Your task to perform on an android device: Search for flights from Sydney to Buenos aires Image 0: 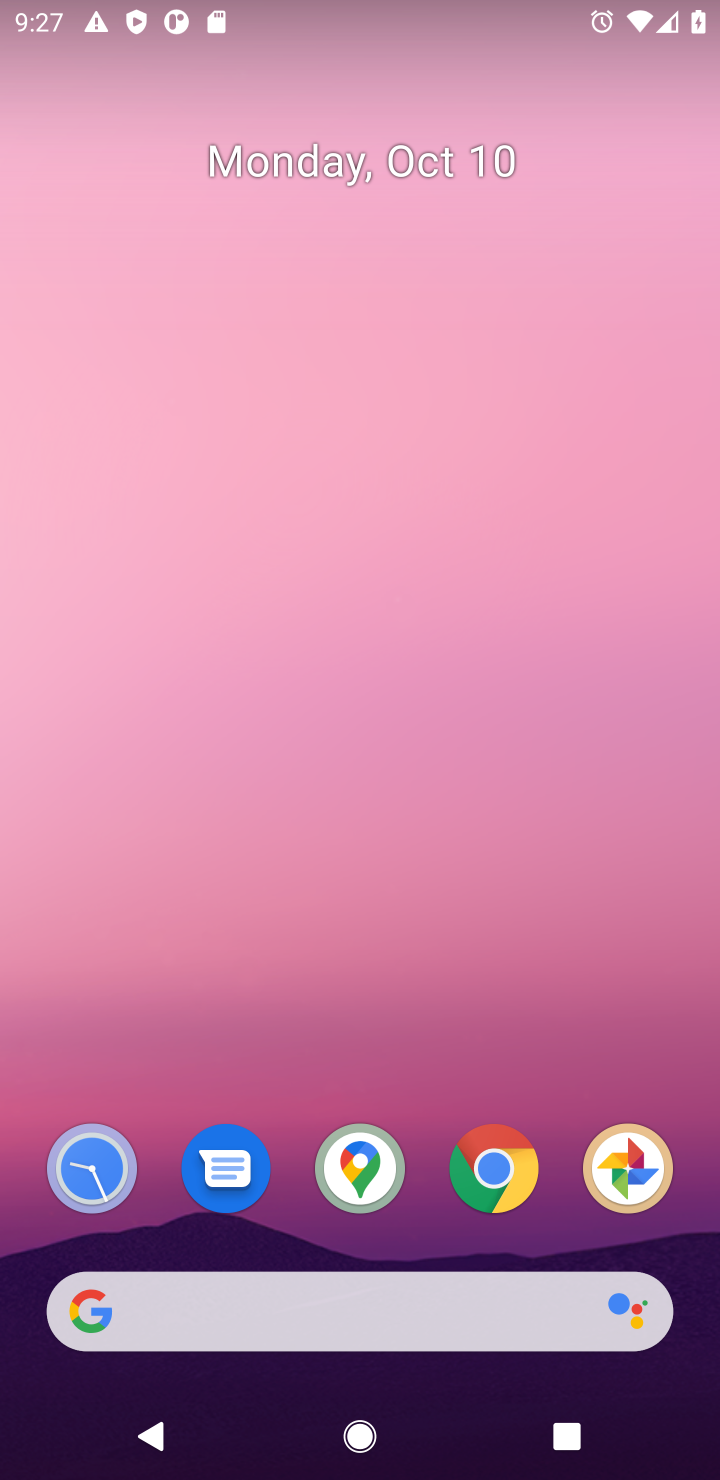
Step 0: drag from (426, 1111) to (474, 367)
Your task to perform on an android device: Search for flights from Sydney to Buenos aires Image 1: 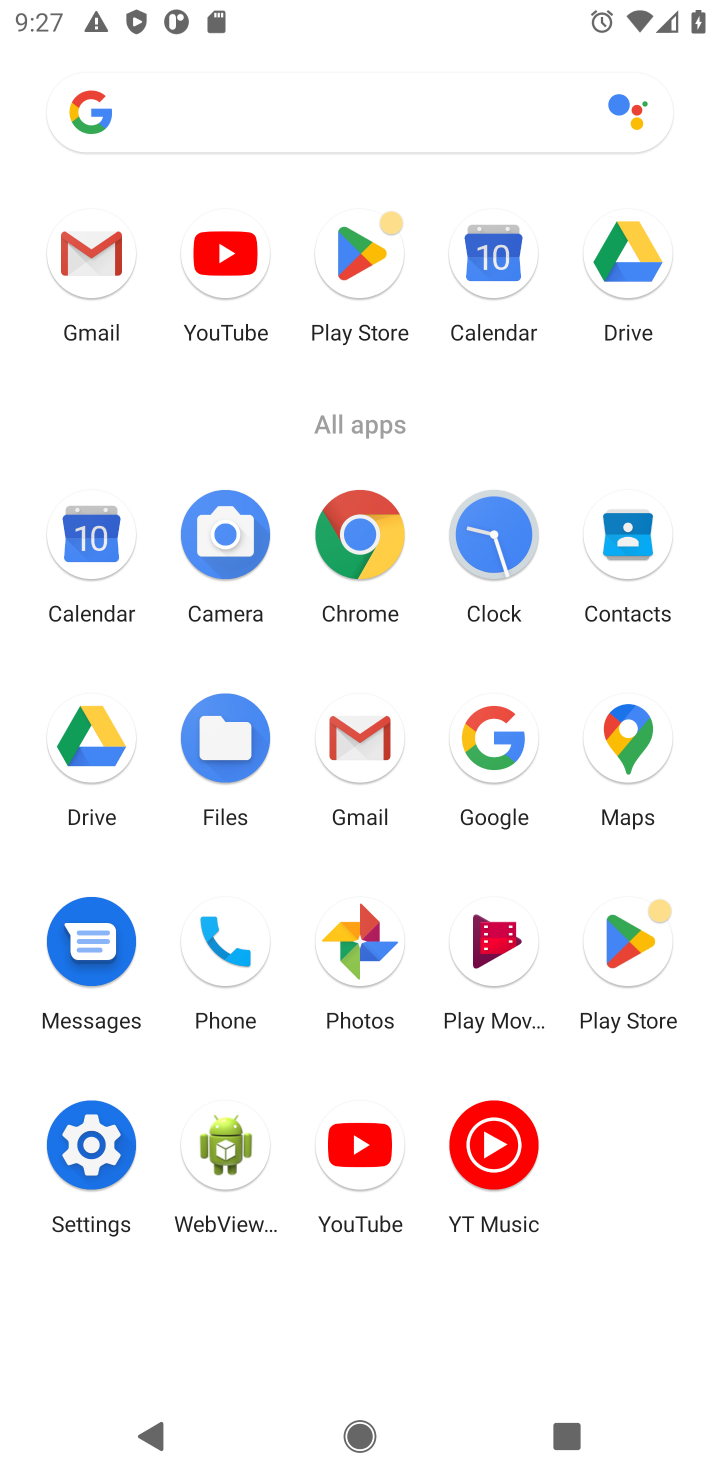
Step 1: click (375, 523)
Your task to perform on an android device: Search for flights from Sydney to Buenos aires Image 2: 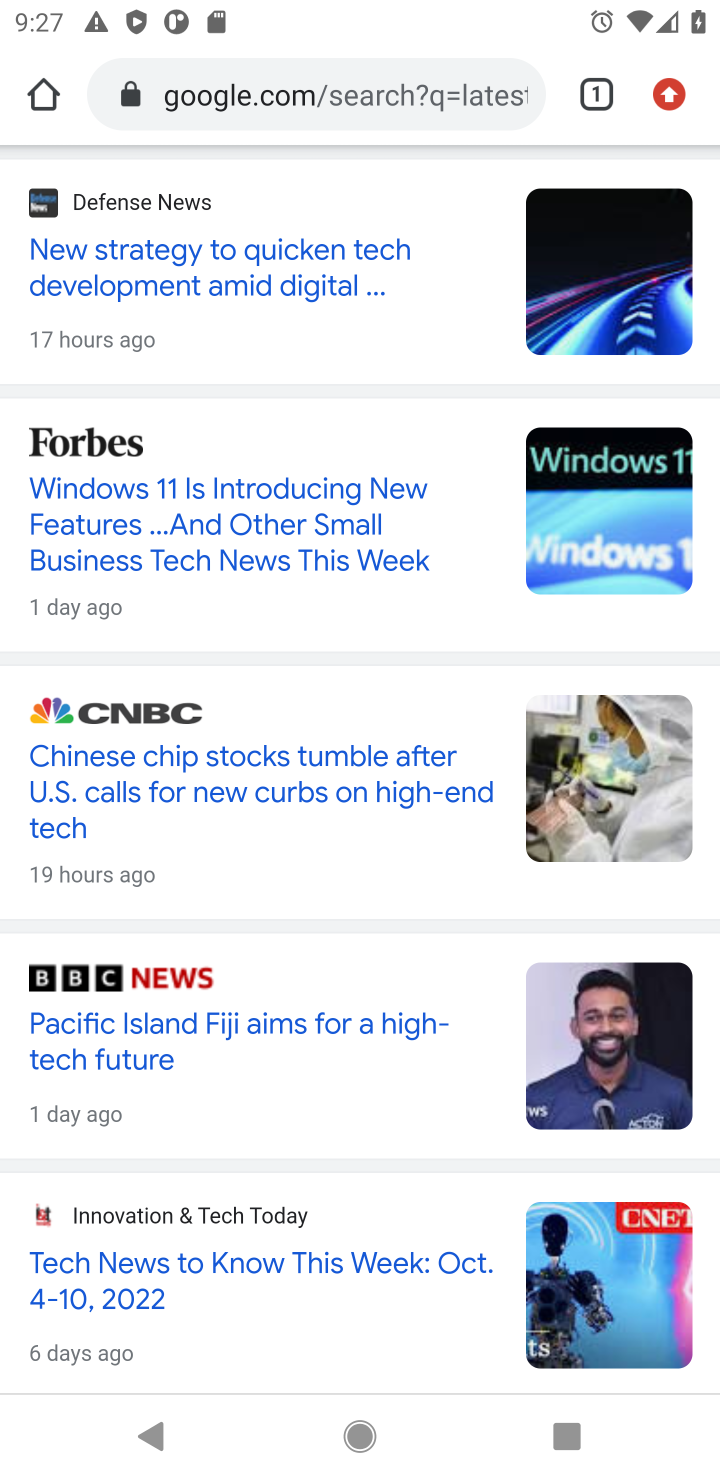
Step 2: drag from (461, 165) to (504, 343)
Your task to perform on an android device: Search for flights from Sydney to Buenos aires Image 3: 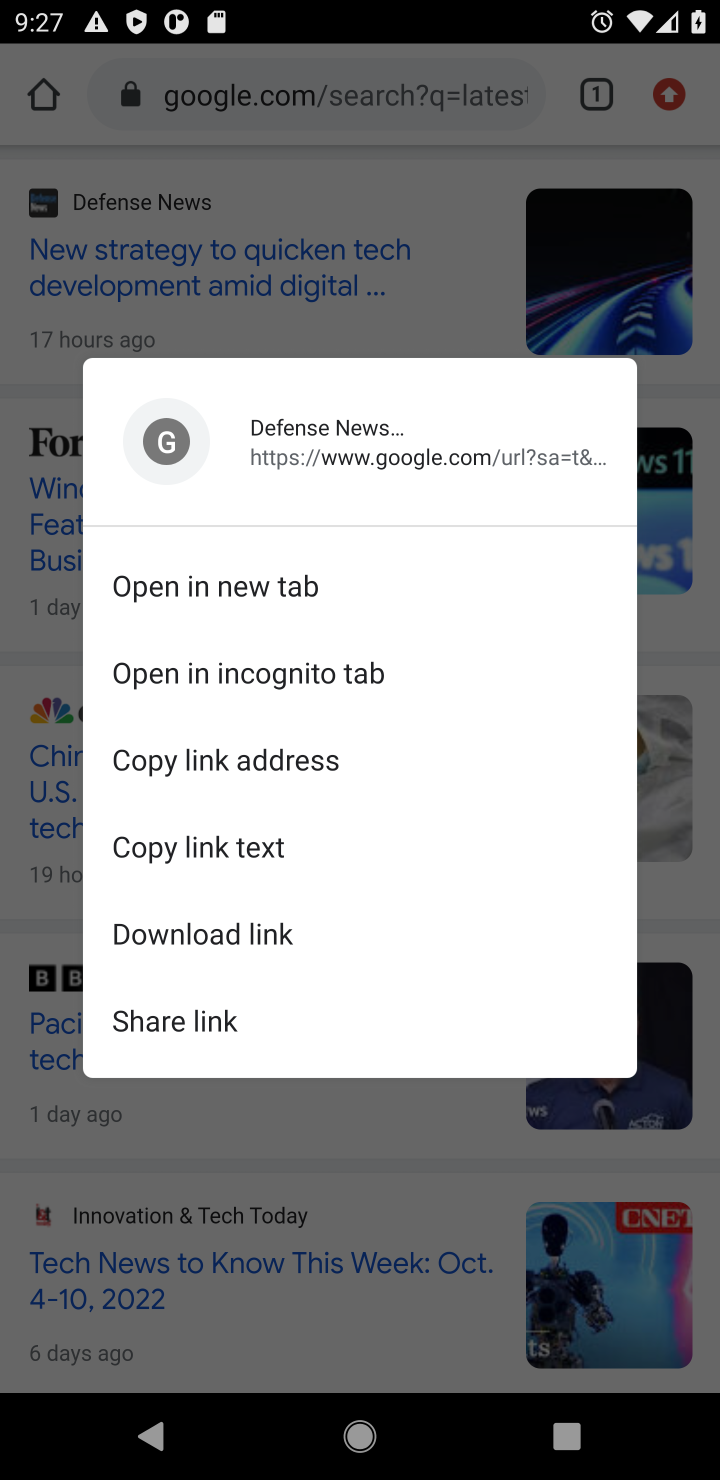
Step 3: click (475, 235)
Your task to perform on an android device: Search for flights from Sydney to Buenos aires Image 4: 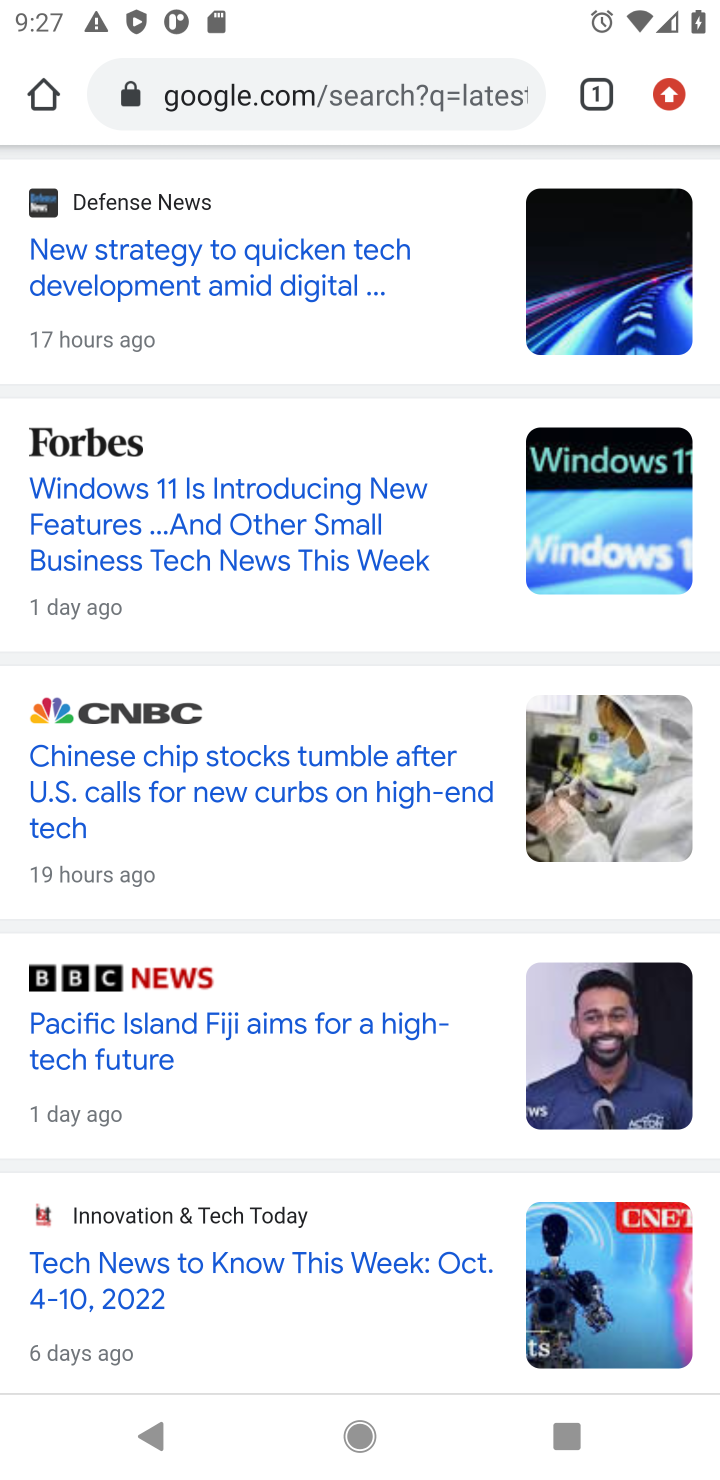
Step 4: click (423, 100)
Your task to perform on an android device: Search for flights from Sydney to Buenos aires Image 5: 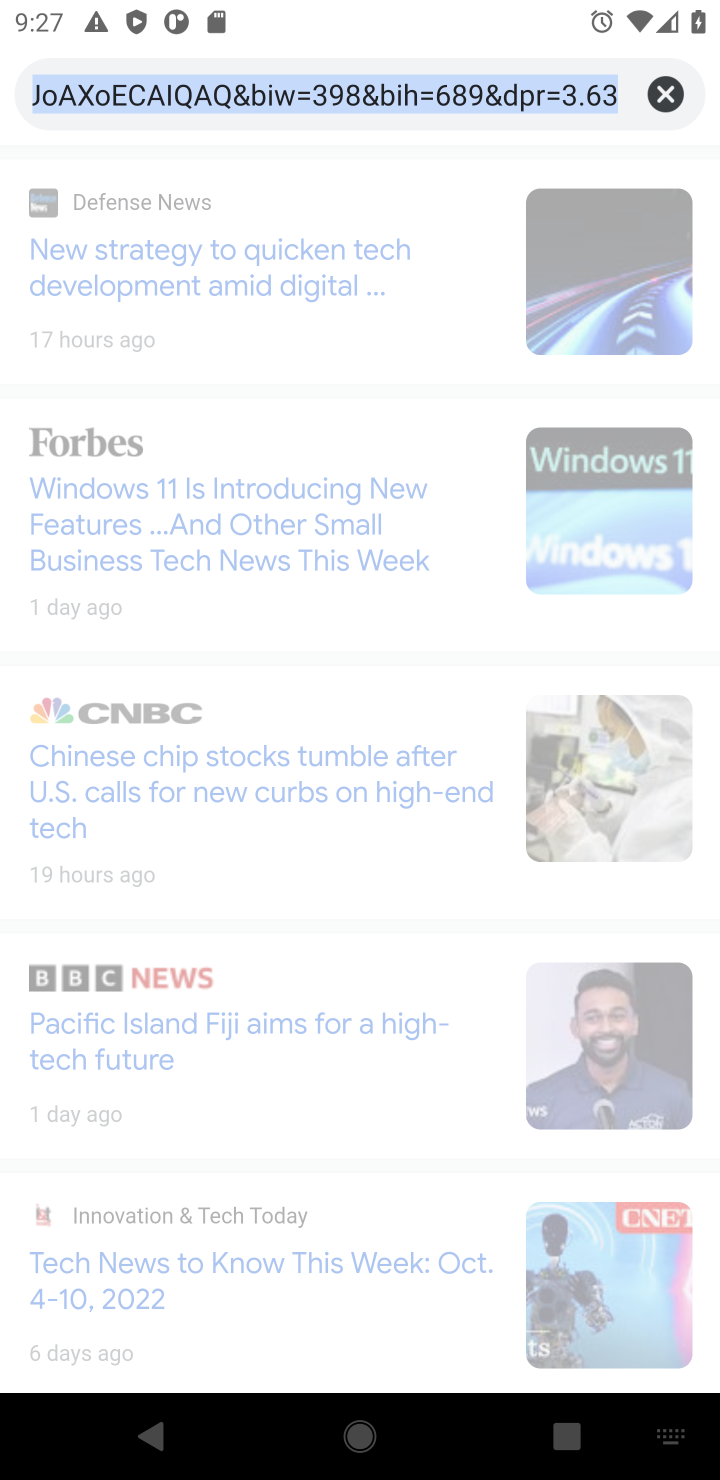
Step 5: type "Sydney to Buenos aires flights"
Your task to perform on an android device: Search for flights from Sydney to Buenos aires Image 6: 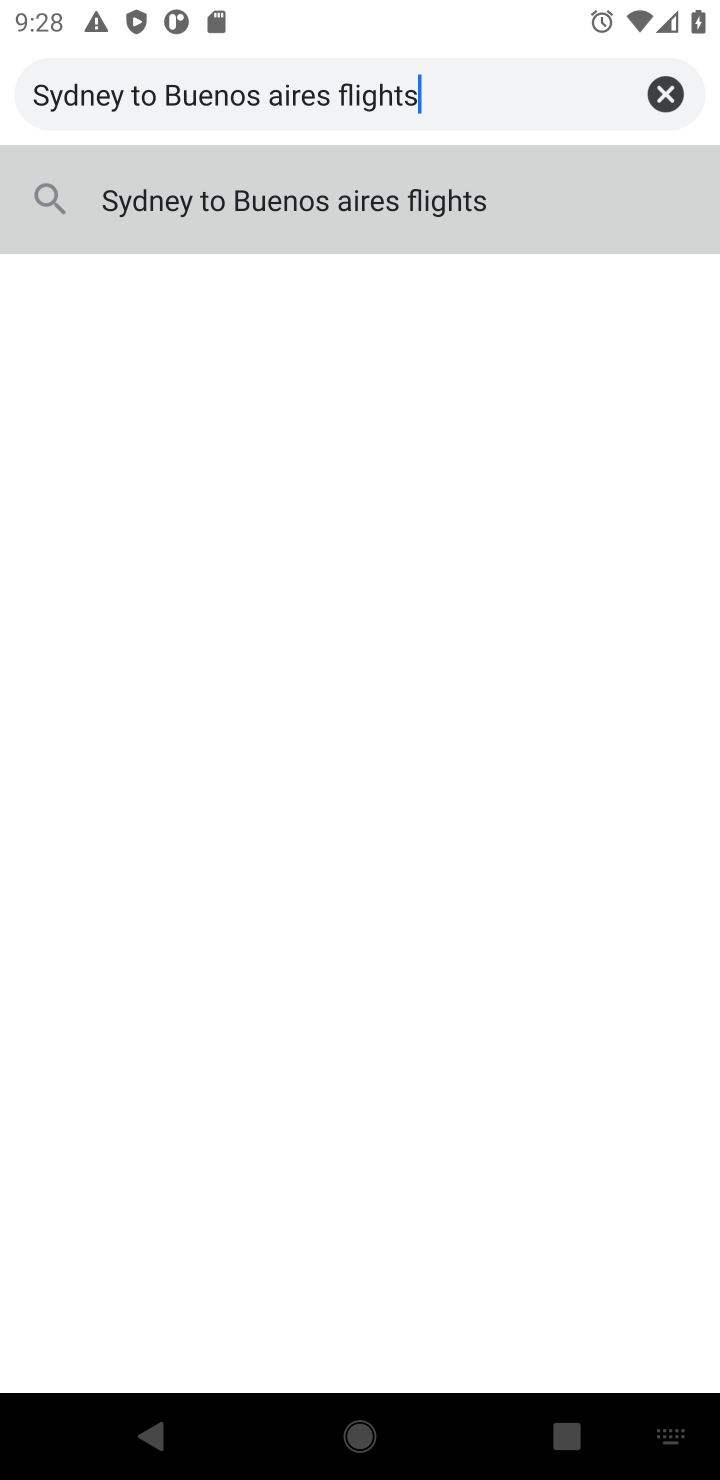
Step 6: click (512, 211)
Your task to perform on an android device: Search for flights from Sydney to Buenos aires Image 7: 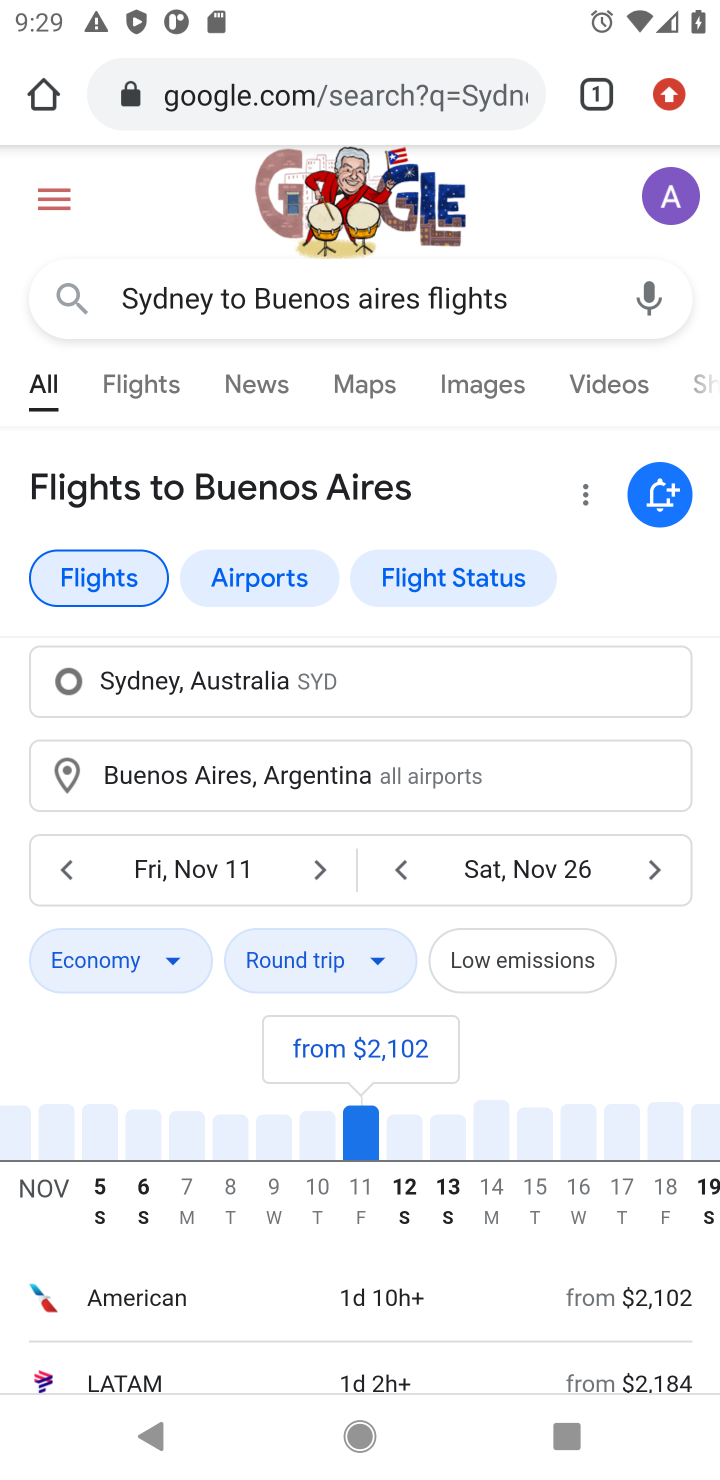
Step 7: task complete